Your task to perform on an android device: Search for sushi restaurants on Maps Image 0: 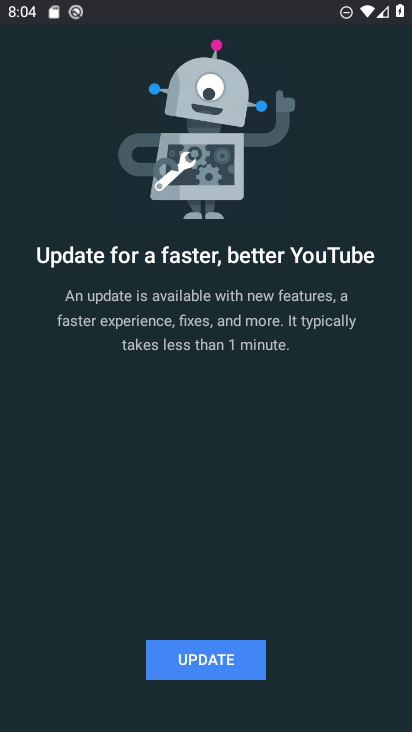
Step 0: press back button
Your task to perform on an android device: Search for sushi restaurants on Maps Image 1: 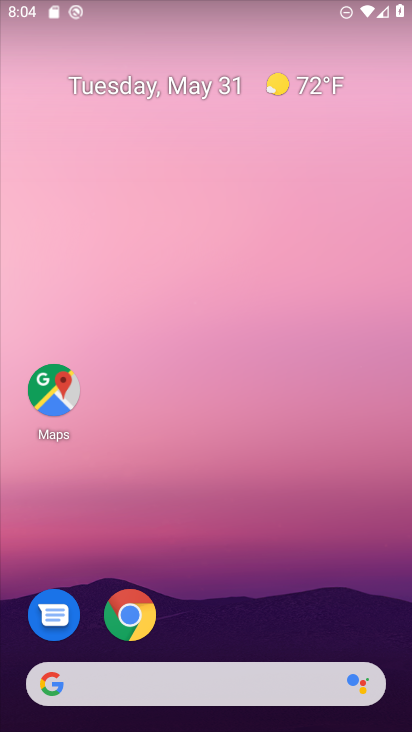
Step 1: click (56, 392)
Your task to perform on an android device: Search for sushi restaurants on Maps Image 2: 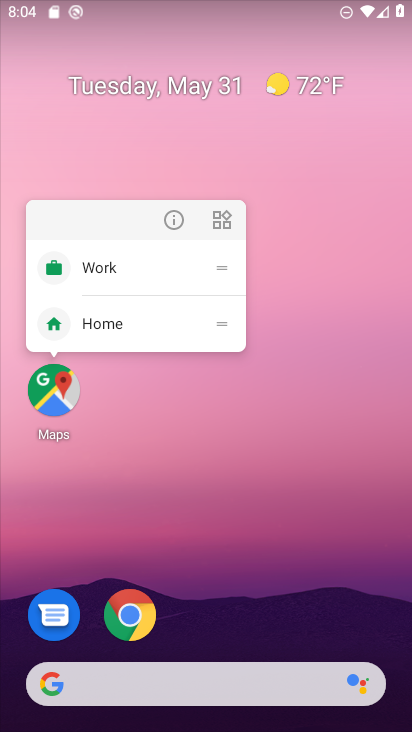
Step 2: click (58, 390)
Your task to perform on an android device: Search for sushi restaurants on Maps Image 3: 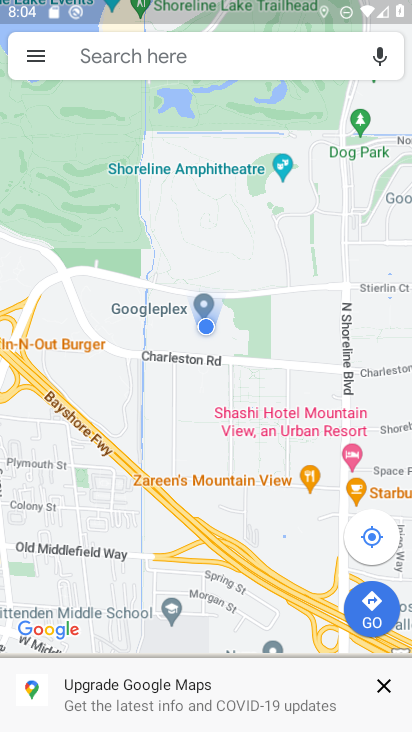
Step 3: click (191, 68)
Your task to perform on an android device: Search for sushi restaurants on Maps Image 4: 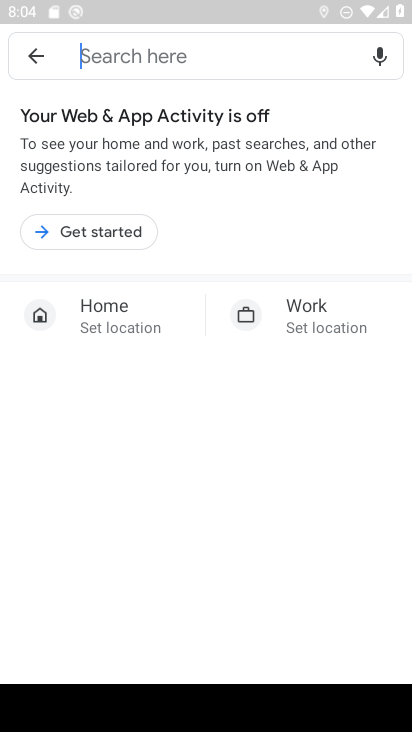
Step 4: type "sushi restaurants"
Your task to perform on an android device: Search for sushi restaurants on Maps Image 5: 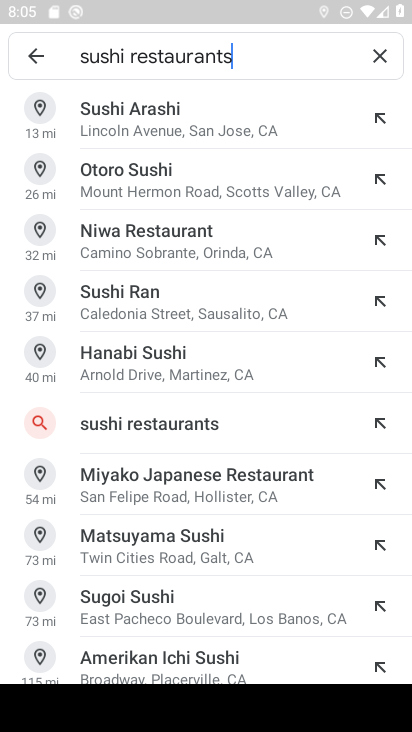
Step 5: click (167, 429)
Your task to perform on an android device: Search for sushi restaurants on Maps Image 6: 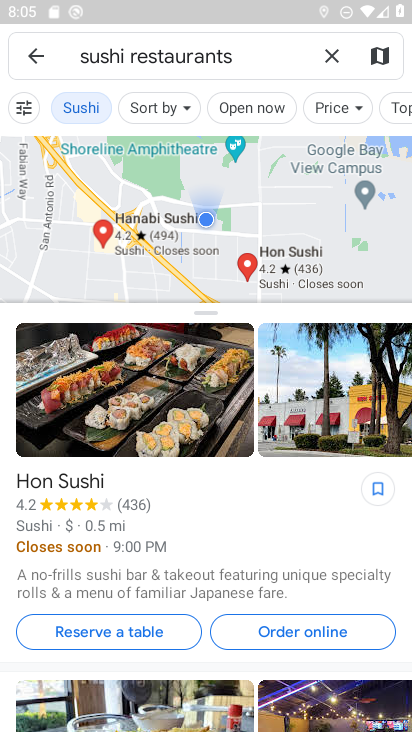
Step 6: task complete